Your task to perform on an android device: Open accessibility settings Image 0: 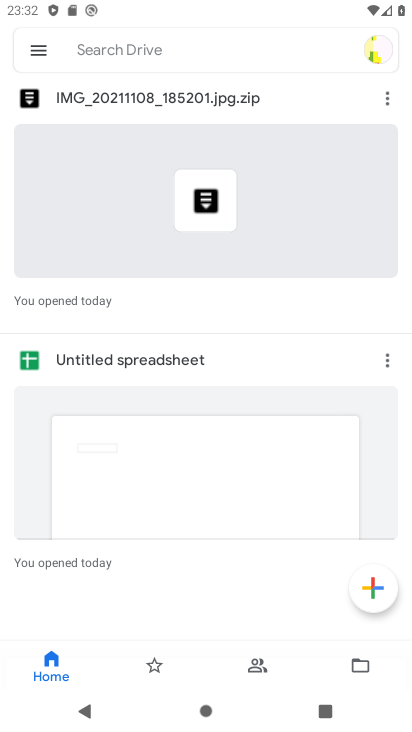
Step 0: press home button
Your task to perform on an android device: Open accessibility settings Image 1: 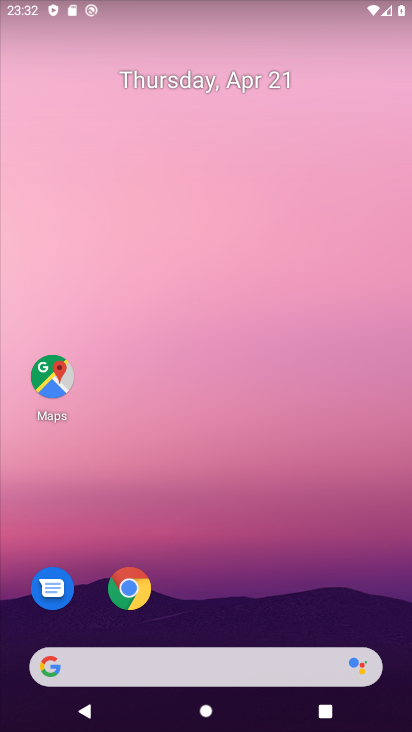
Step 1: drag from (215, 582) to (250, 170)
Your task to perform on an android device: Open accessibility settings Image 2: 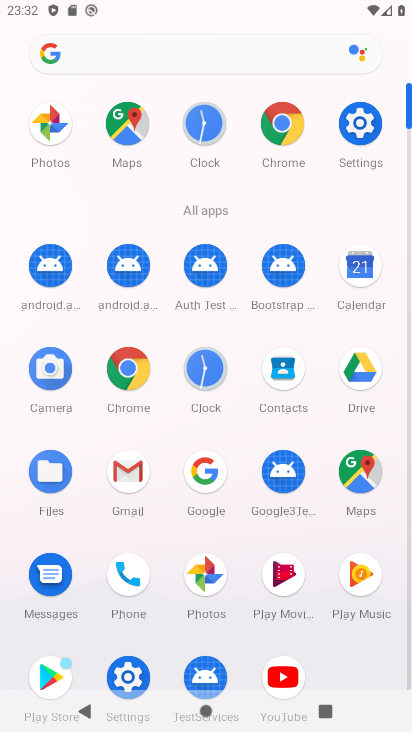
Step 2: click (352, 134)
Your task to perform on an android device: Open accessibility settings Image 3: 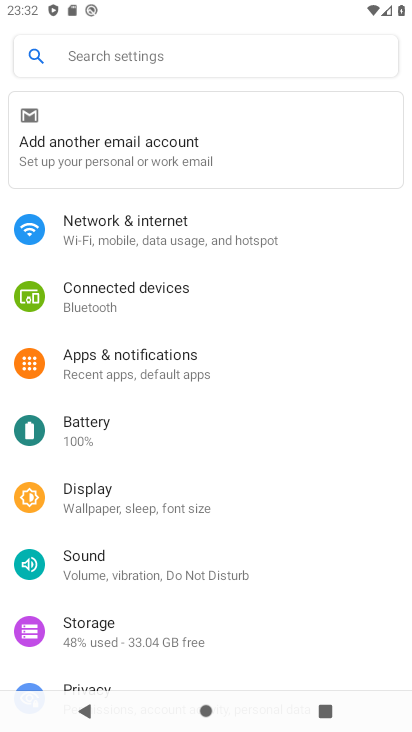
Step 3: drag from (187, 549) to (235, 201)
Your task to perform on an android device: Open accessibility settings Image 4: 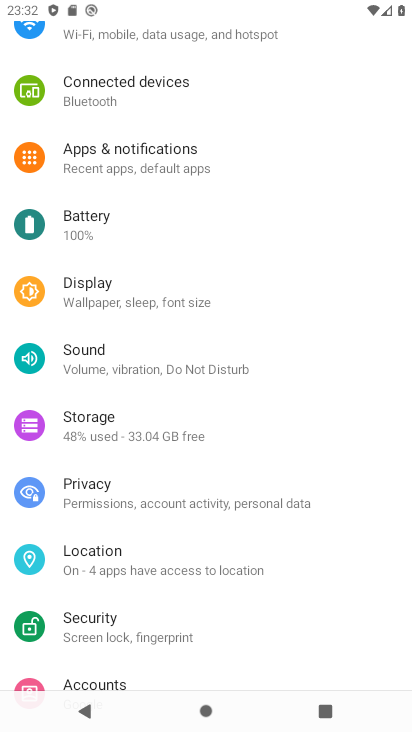
Step 4: drag from (183, 571) to (261, 146)
Your task to perform on an android device: Open accessibility settings Image 5: 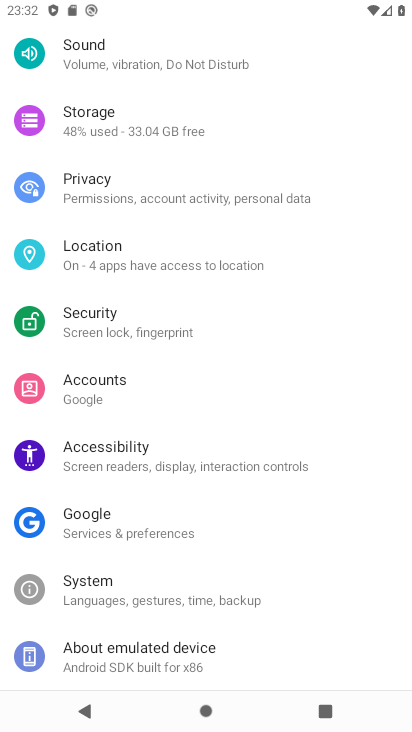
Step 5: click (164, 459)
Your task to perform on an android device: Open accessibility settings Image 6: 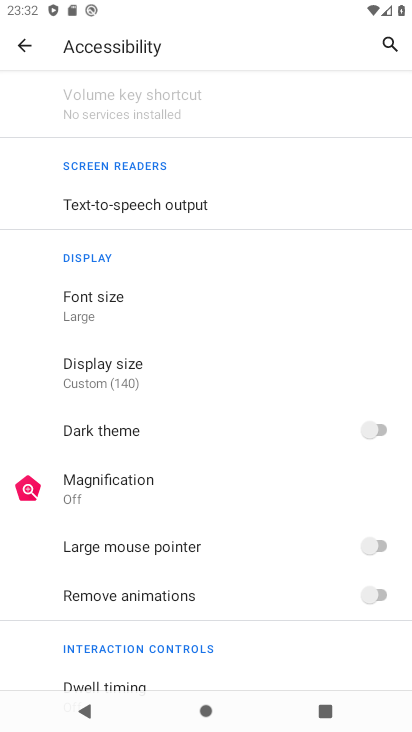
Step 6: task complete